Your task to perform on an android device: Open calendar and show me the first week of next month Image 0: 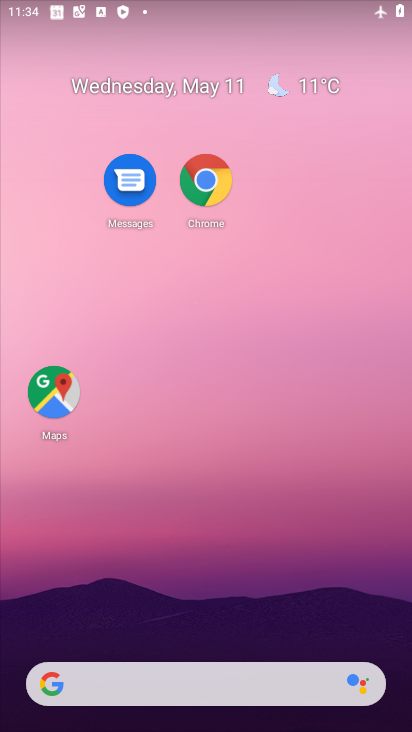
Step 0: drag from (197, 555) to (205, 0)
Your task to perform on an android device: Open calendar and show me the first week of next month Image 1: 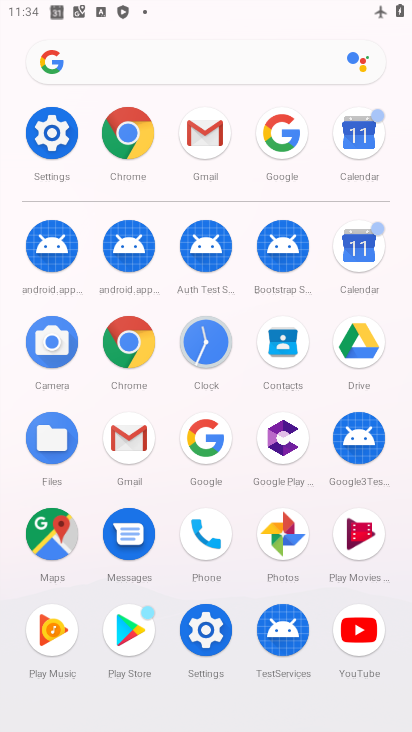
Step 1: click (351, 251)
Your task to perform on an android device: Open calendar and show me the first week of next month Image 2: 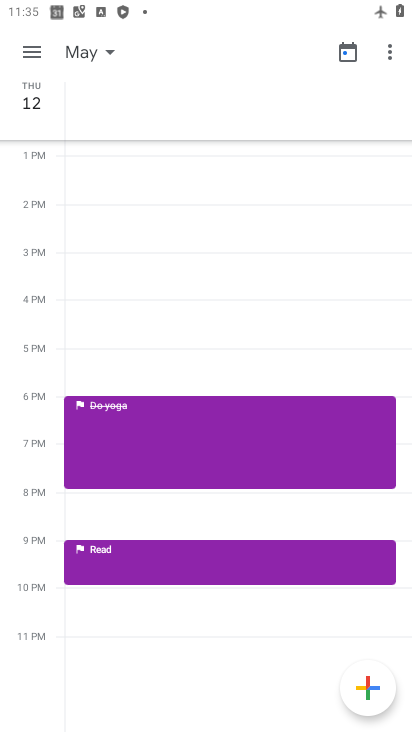
Step 2: click (108, 52)
Your task to perform on an android device: Open calendar and show me the first week of next month Image 3: 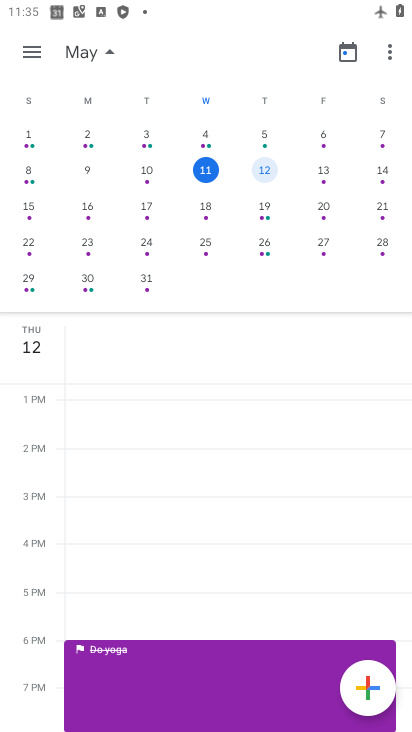
Step 3: drag from (309, 224) to (43, 245)
Your task to perform on an android device: Open calendar and show me the first week of next month Image 4: 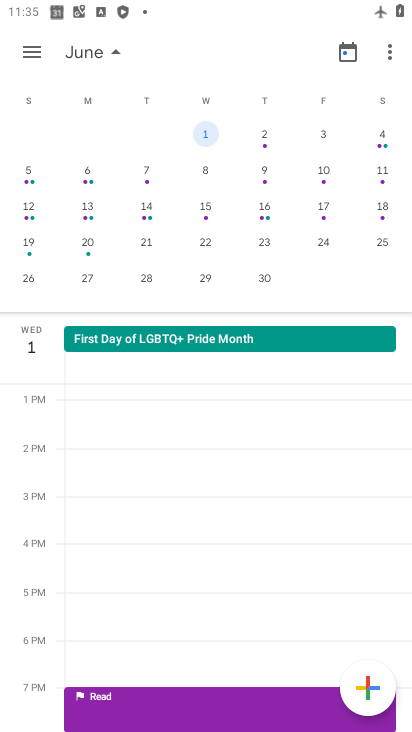
Step 4: click (36, 45)
Your task to perform on an android device: Open calendar and show me the first week of next month Image 5: 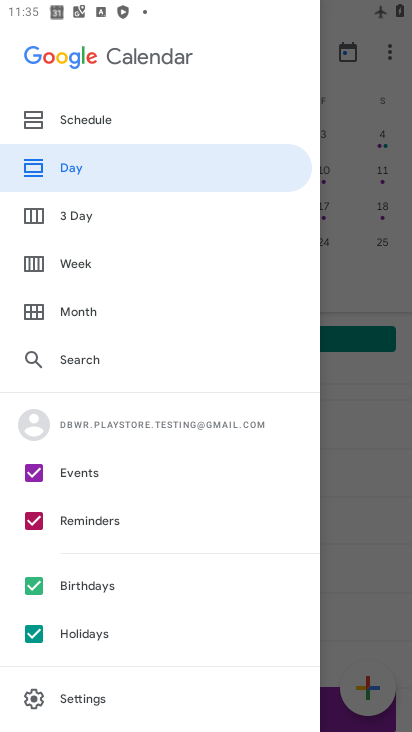
Step 5: click (97, 265)
Your task to perform on an android device: Open calendar and show me the first week of next month Image 6: 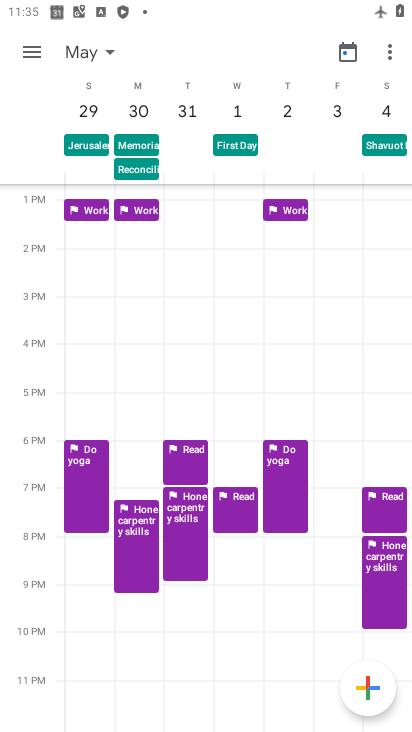
Step 6: task complete